Your task to perform on an android device: Open Youtube and go to "Your channel" Image 0: 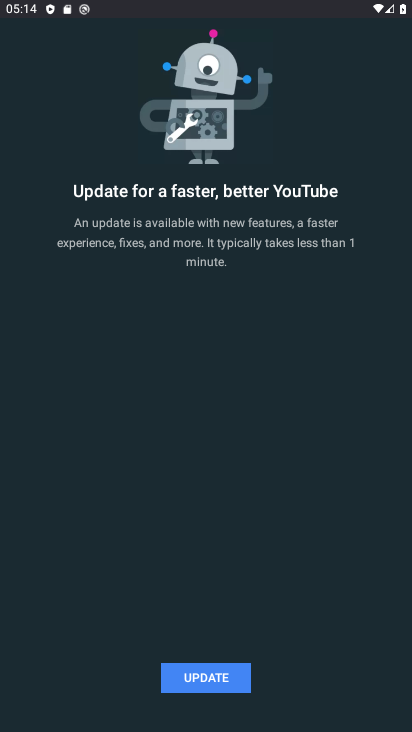
Step 0: press home button
Your task to perform on an android device: Open Youtube and go to "Your channel" Image 1: 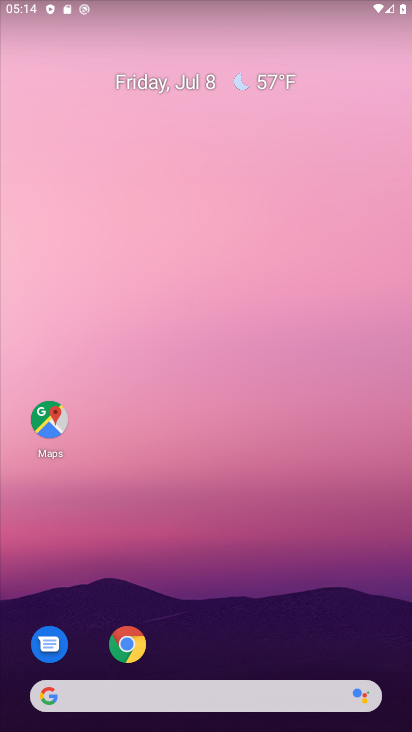
Step 1: drag from (193, 696) to (243, 26)
Your task to perform on an android device: Open Youtube and go to "Your channel" Image 2: 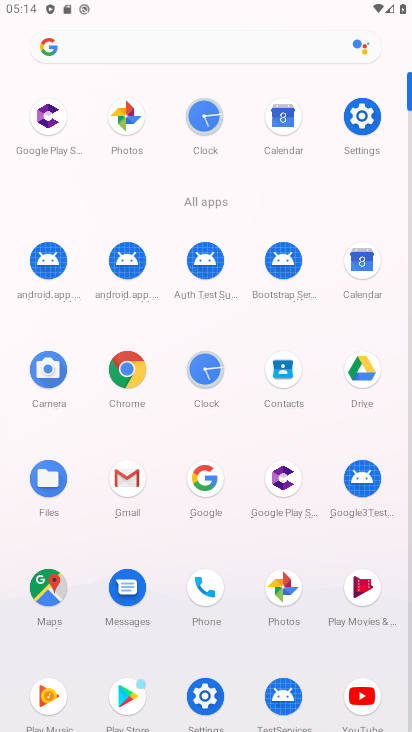
Step 2: click (361, 695)
Your task to perform on an android device: Open Youtube and go to "Your channel" Image 3: 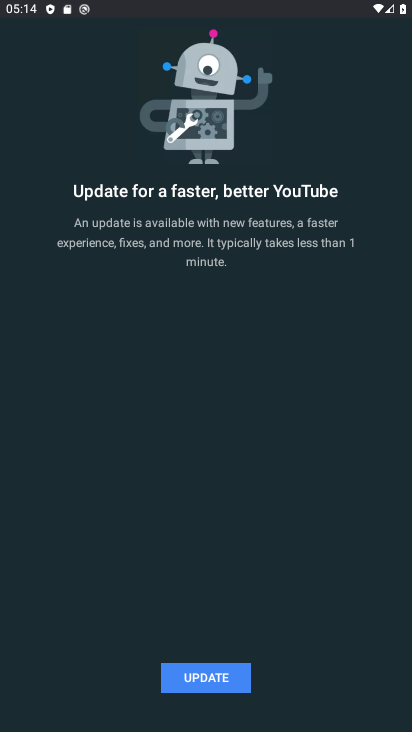
Step 3: click (226, 676)
Your task to perform on an android device: Open Youtube and go to "Your channel" Image 4: 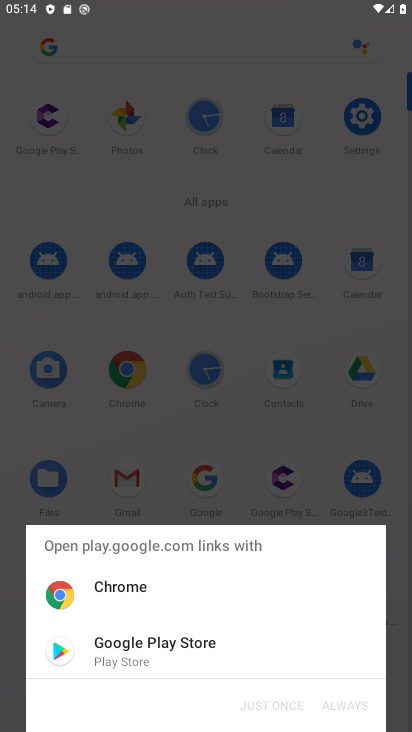
Step 4: click (146, 642)
Your task to perform on an android device: Open Youtube and go to "Your channel" Image 5: 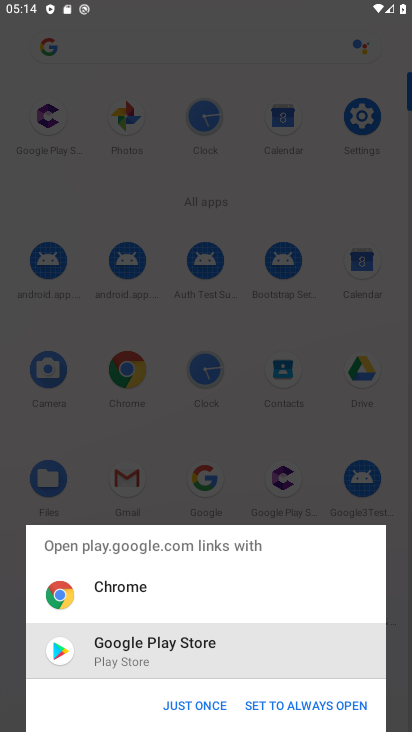
Step 5: click (185, 700)
Your task to perform on an android device: Open Youtube and go to "Your channel" Image 6: 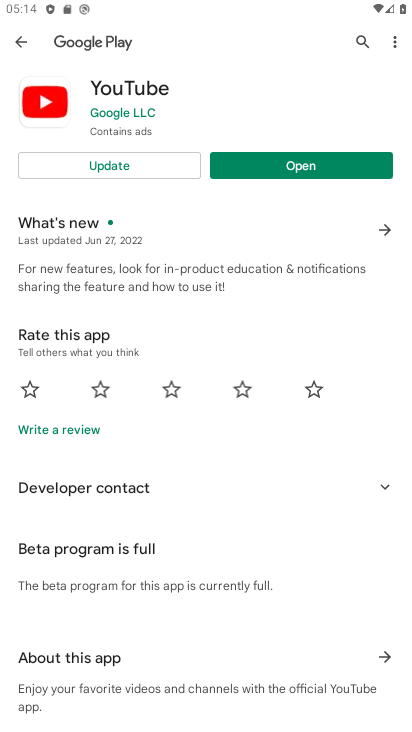
Step 6: click (139, 163)
Your task to perform on an android device: Open Youtube and go to "Your channel" Image 7: 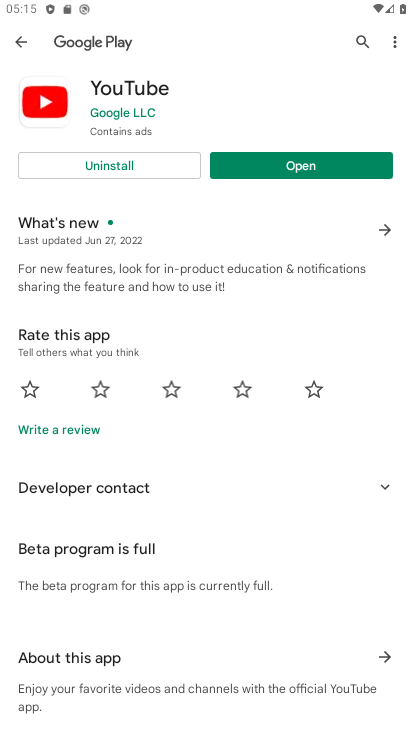
Step 7: click (310, 158)
Your task to perform on an android device: Open Youtube and go to "Your channel" Image 8: 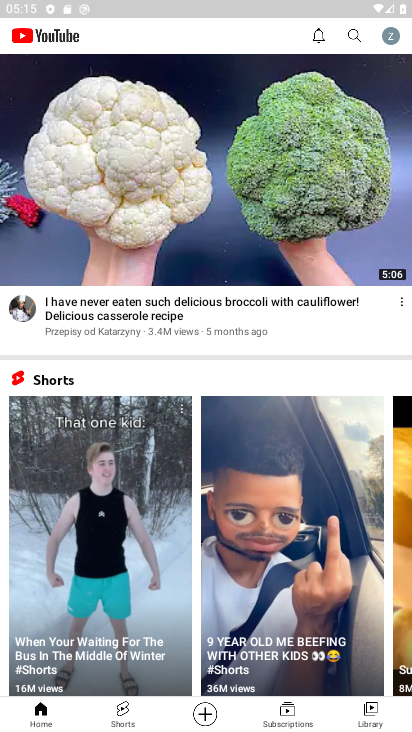
Step 8: click (388, 37)
Your task to perform on an android device: Open Youtube and go to "Your channel" Image 9: 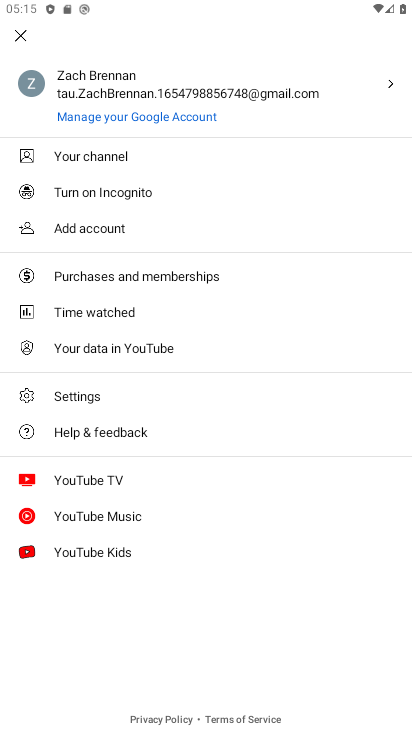
Step 9: click (113, 150)
Your task to perform on an android device: Open Youtube and go to "Your channel" Image 10: 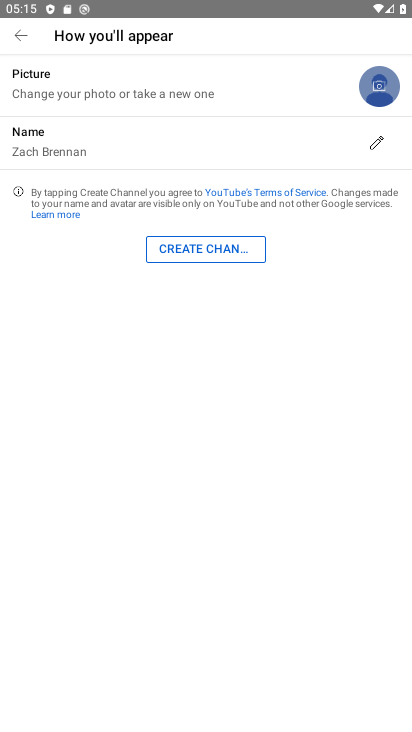
Step 10: task complete